Your task to perform on an android device: check android version Image 0: 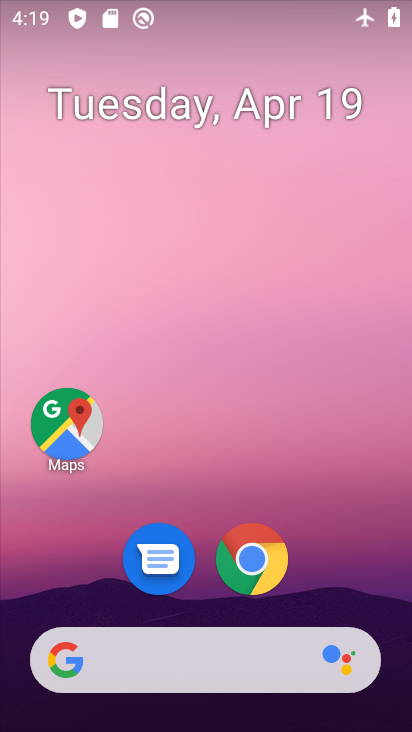
Step 0: click (333, 482)
Your task to perform on an android device: check android version Image 1: 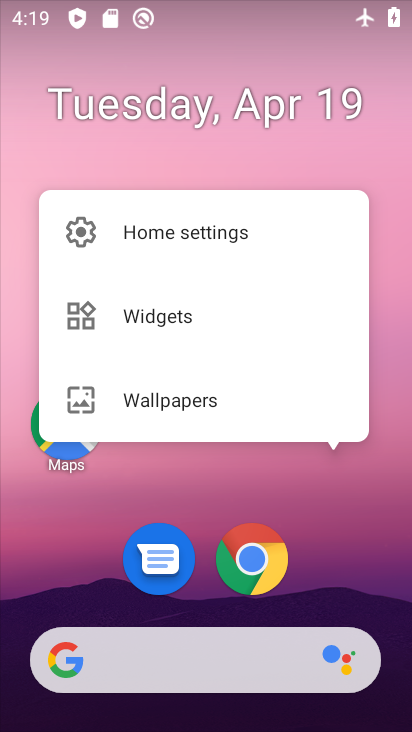
Step 1: drag from (328, 554) to (297, 253)
Your task to perform on an android device: check android version Image 2: 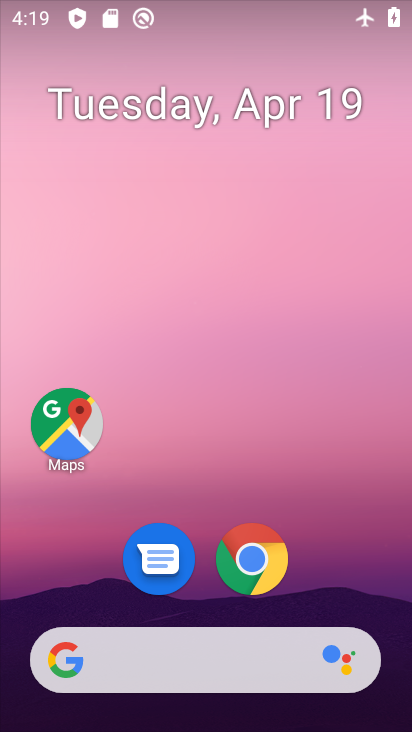
Step 2: drag from (279, 172) to (295, 15)
Your task to perform on an android device: check android version Image 3: 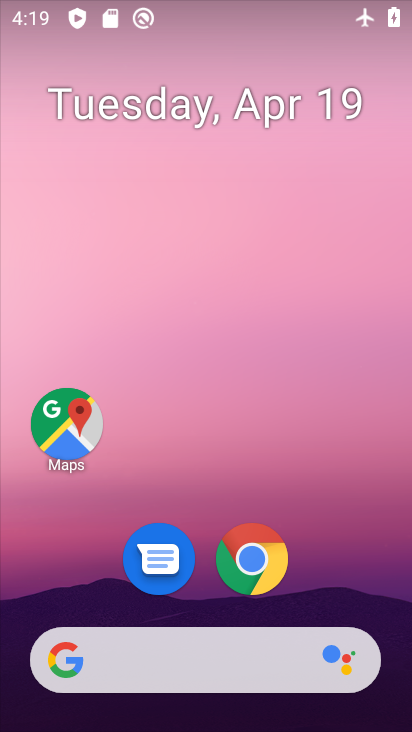
Step 3: drag from (346, 469) to (363, 100)
Your task to perform on an android device: check android version Image 4: 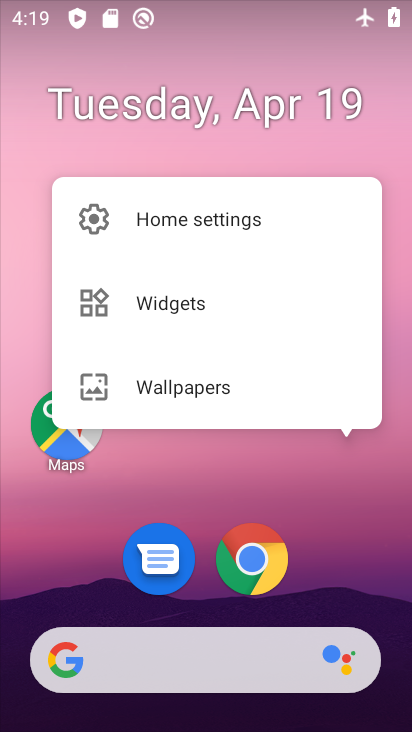
Step 4: drag from (249, 397) to (204, 448)
Your task to perform on an android device: check android version Image 5: 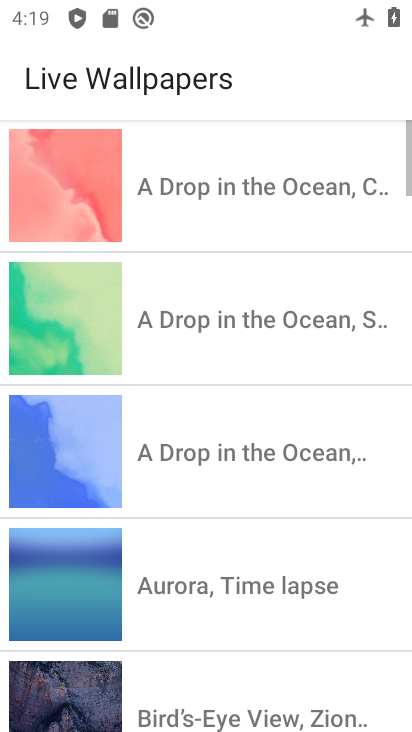
Step 5: press back button
Your task to perform on an android device: check android version Image 6: 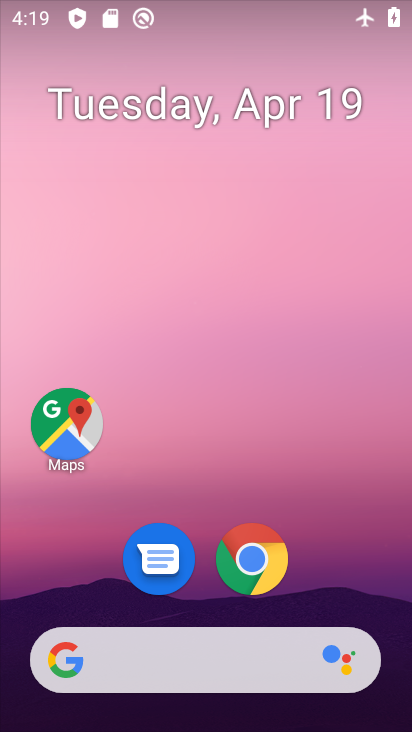
Step 6: drag from (330, 553) to (300, 182)
Your task to perform on an android device: check android version Image 7: 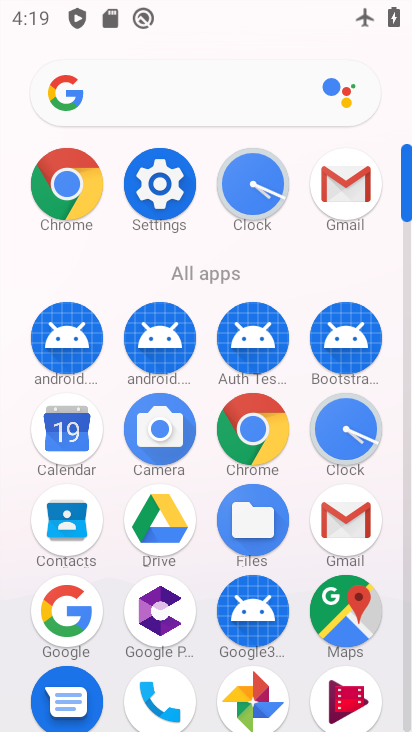
Step 7: click (137, 186)
Your task to perform on an android device: check android version Image 8: 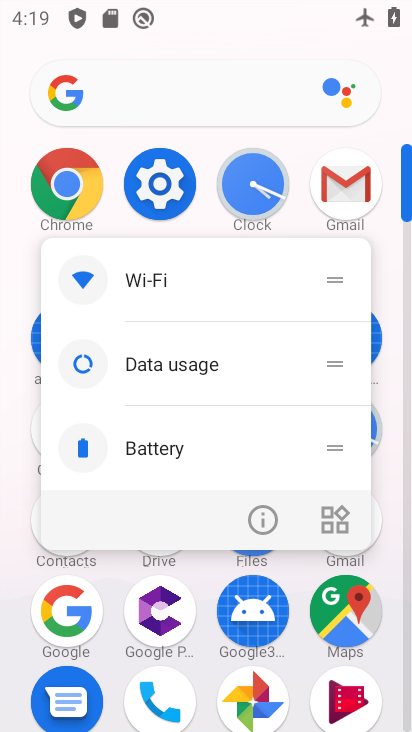
Step 8: click (138, 144)
Your task to perform on an android device: check android version Image 9: 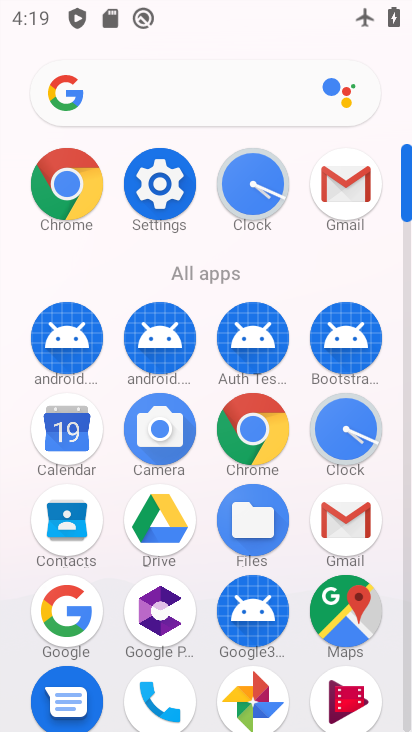
Step 9: click (152, 173)
Your task to perform on an android device: check android version Image 10: 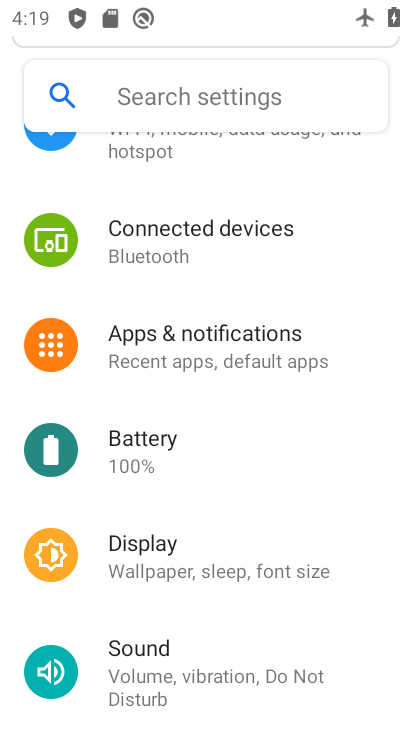
Step 10: drag from (150, 457) to (114, 137)
Your task to perform on an android device: check android version Image 11: 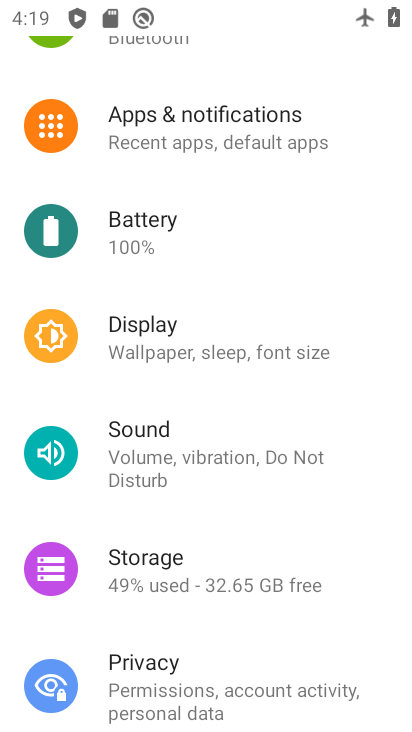
Step 11: drag from (175, 636) to (129, 229)
Your task to perform on an android device: check android version Image 12: 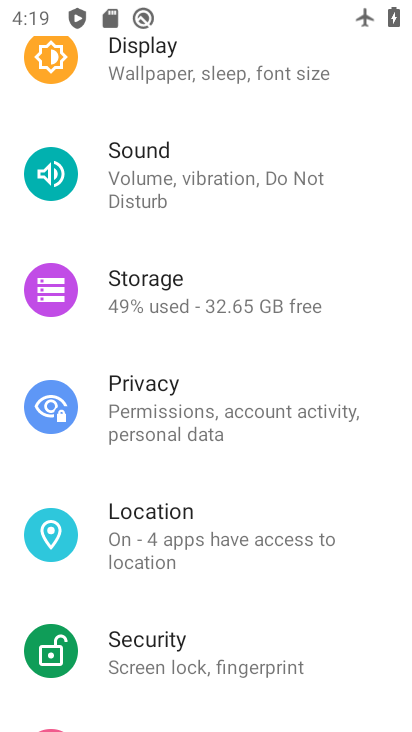
Step 12: drag from (233, 630) to (135, 36)
Your task to perform on an android device: check android version Image 13: 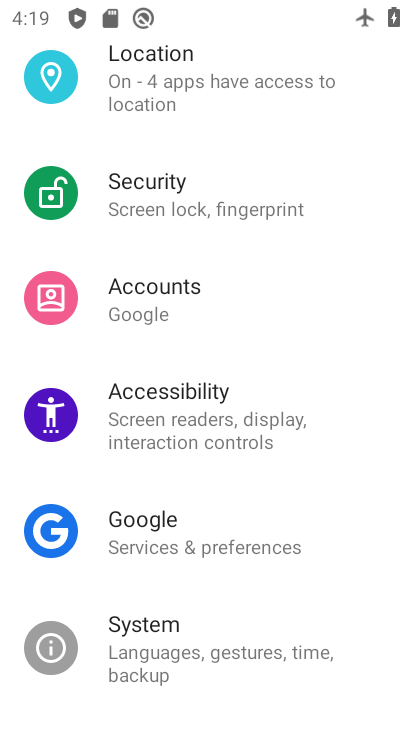
Step 13: click (259, 627)
Your task to perform on an android device: check android version Image 14: 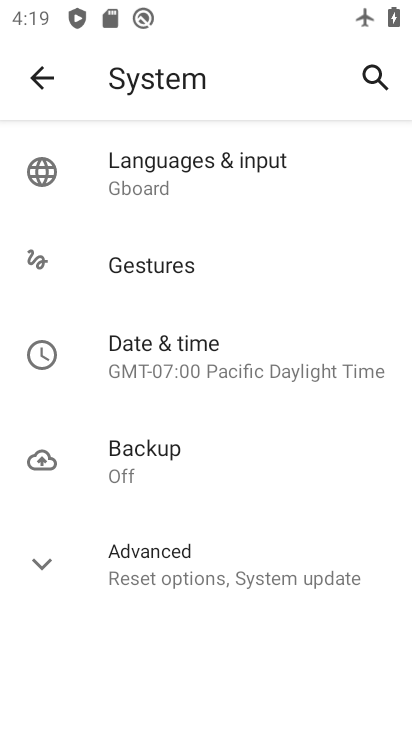
Step 14: click (36, 95)
Your task to perform on an android device: check android version Image 15: 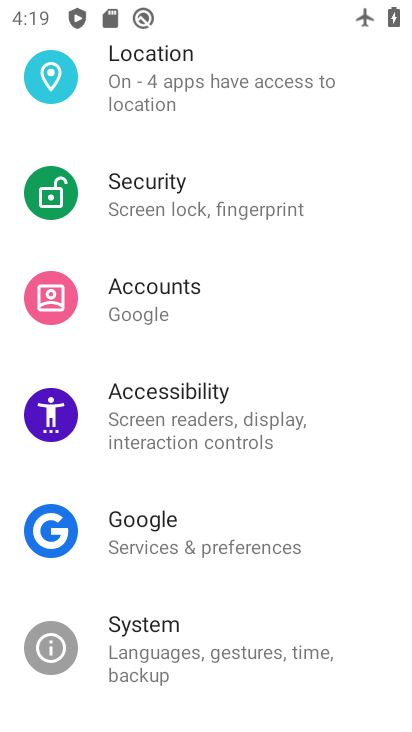
Step 15: drag from (180, 516) to (93, 36)
Your task to perform on an android device: check android version Image 16: 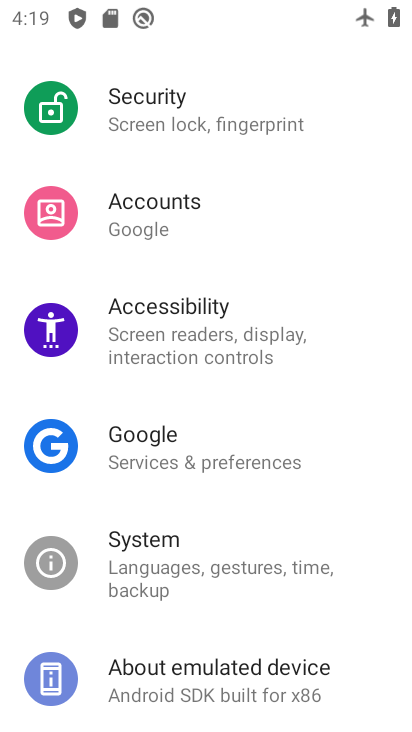
Step 16: click (203, 689)
Your task to perform on an android device: check android version Image 17: 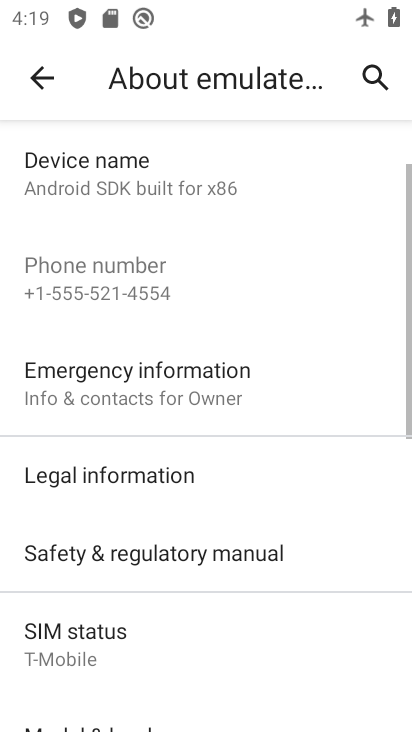
Step 17: drag from (214, 512) to (142, 220)
Your task to perform on an android device: check android version Image 18: 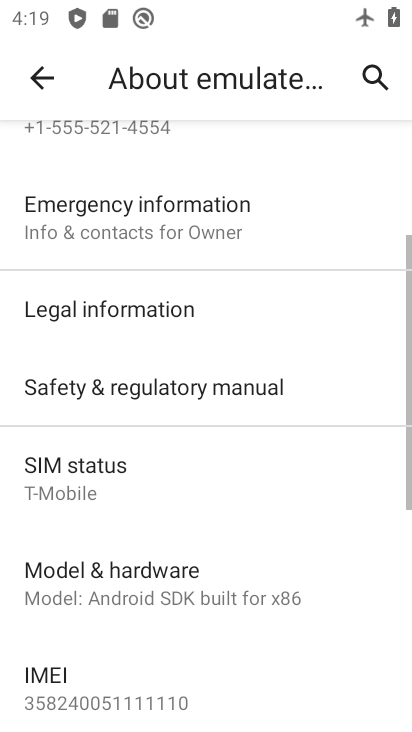
Step 18: drag from (155, 579) to (109, 235)
Your task to perform on an android device: check android version Image 19: 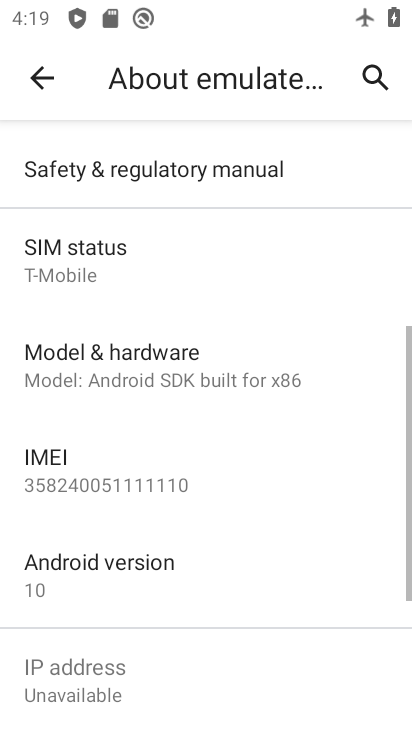
Step 19: click (109, 235)
Your task to perform on an android device: check android version Image 20: 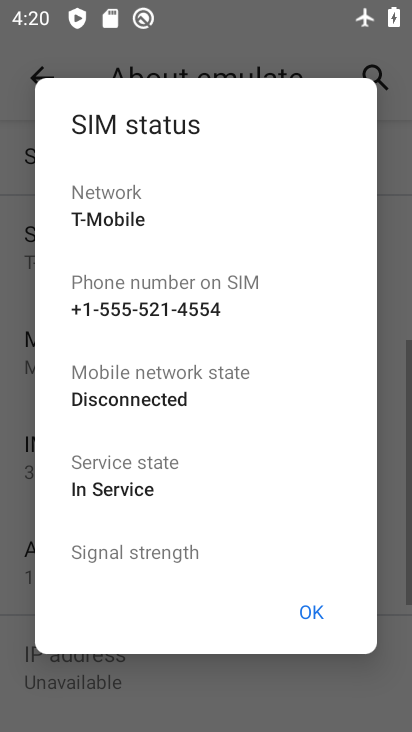
Step 20: click (321, 605)
Your task to perform on an android device: check android version Image 21: 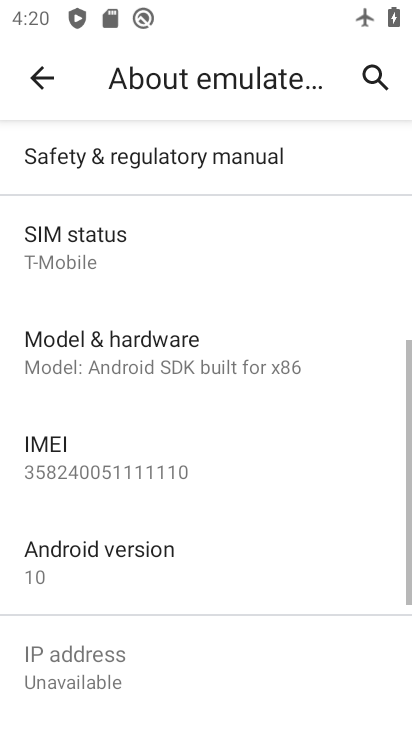
Step 21: click (281, 575)
Your task to perform on an android device: check android version Image 22: 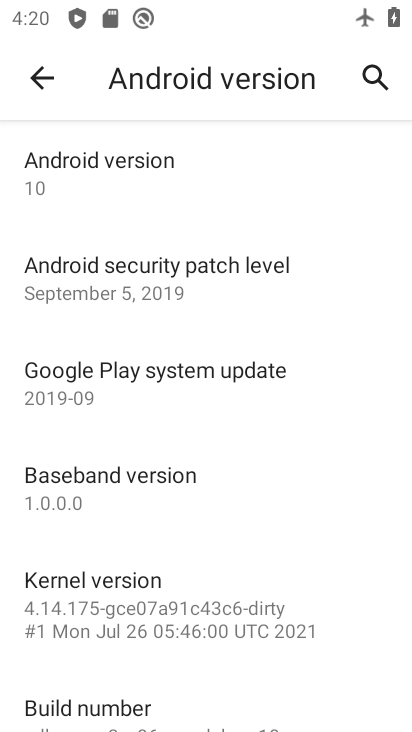
Step 22: task complete